Your task to perform on an android device: turn smart compose on in the gmail app Image 0: 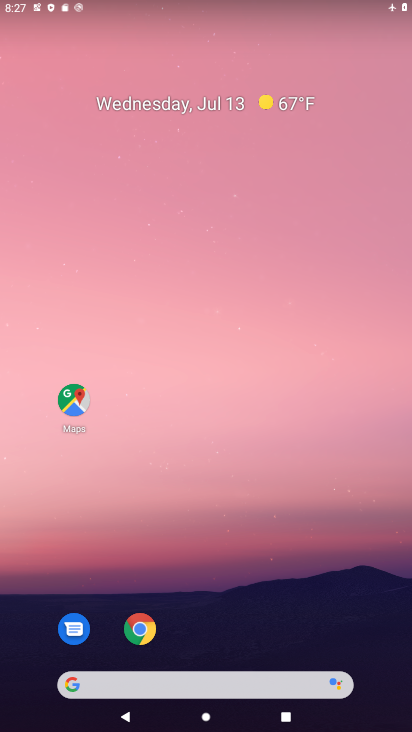
Step 0: drag from (212, 643) to (264, 18)
Your task to perform on an android device: turn smart compose on in the gmail app Image 1: 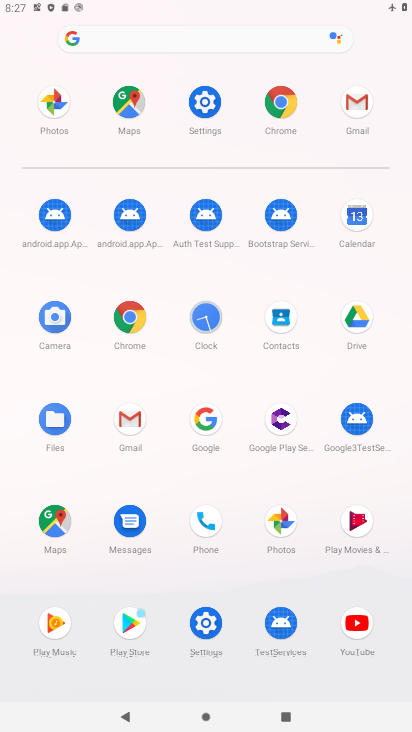
Step 1: click (124, 424)
Your task to perform on an android device: turn smart compose on in the gmail app Image 2: 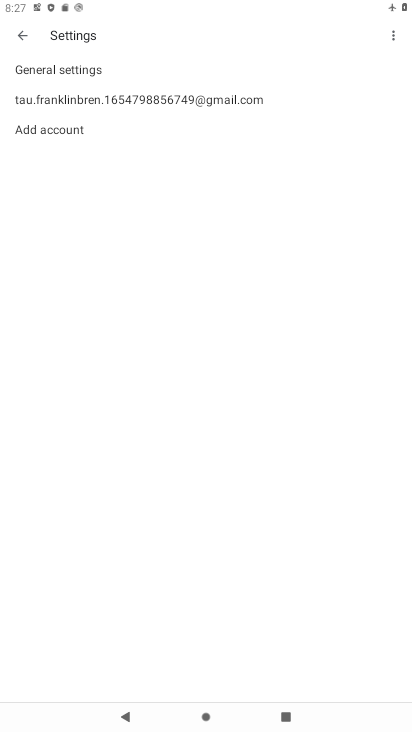
Step 2: click (116, 104)
Your task to perform on an android device: turn smart compose on in the gmail app Image 3: 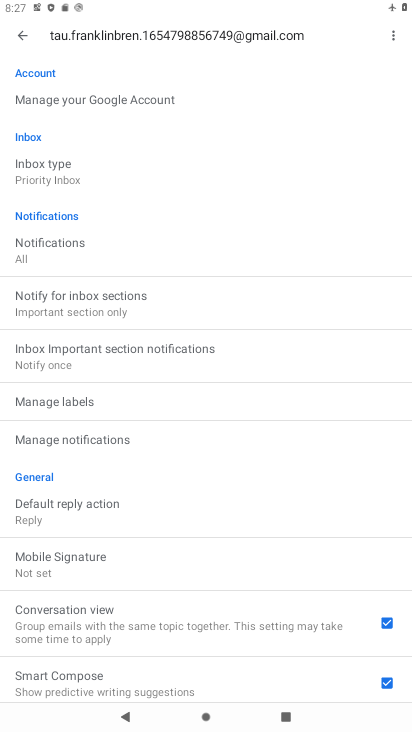
Step 3: task complete